Your task to perform on an android device: check out phone information Image 0: 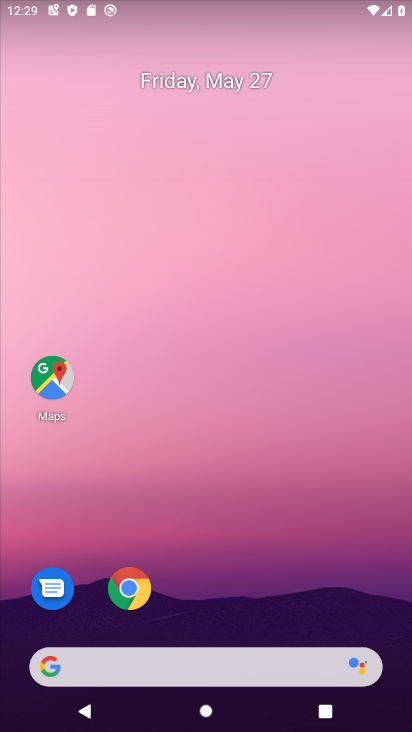
Step 0: drag from (153, 724) to (229, 142)
Your task to perform on an android device: check out phone information Image 1: 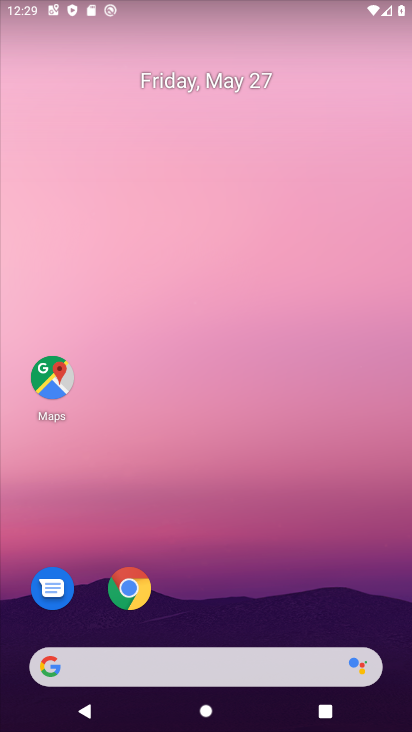
Step 1: drag from (153, 692) to (139, 38)
Your task to perform on an android device: check out phone information Image 2: 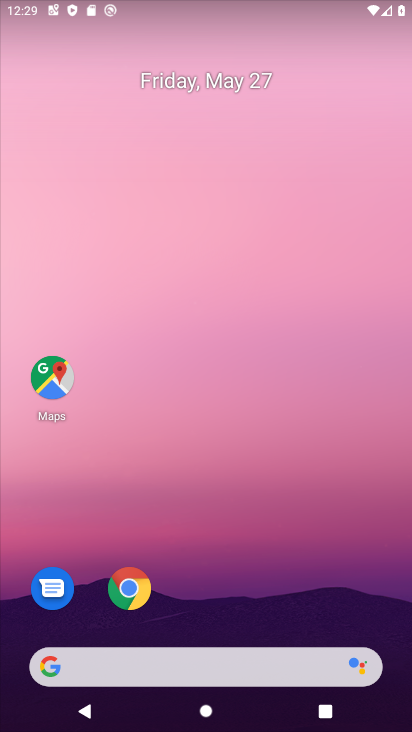
Step 2: drag from (138, 697) to (162, 23)
Your task to perform on an android device: check out phone information Image 3: 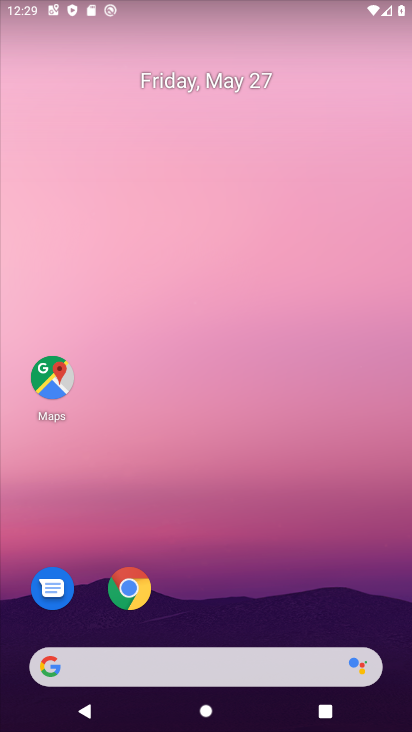
Step 3: drag from (155, 726) to (217, 7)
Your task to perform on an android device: check out phone information Image 4: 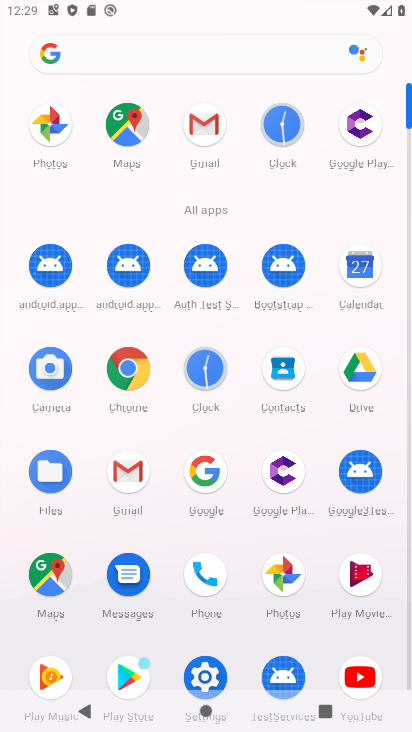
Step 4: click (210, 675)
Your task to perform on an android device: check out phone information Image 5: 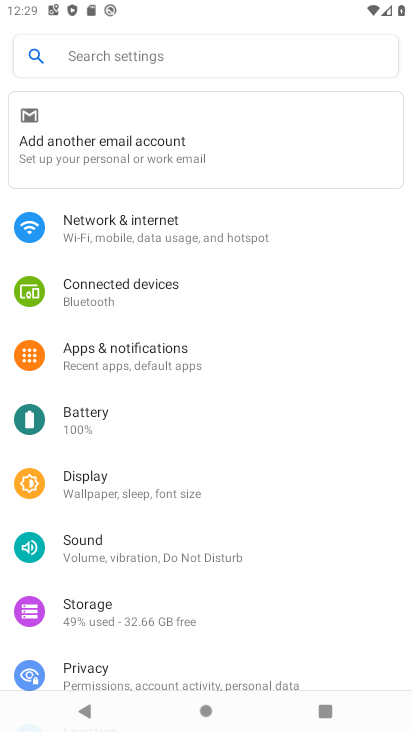
Step 5: drag from (150, 665) to (222, 183)
Your task to perform on an android device: check out phone information Image 6: 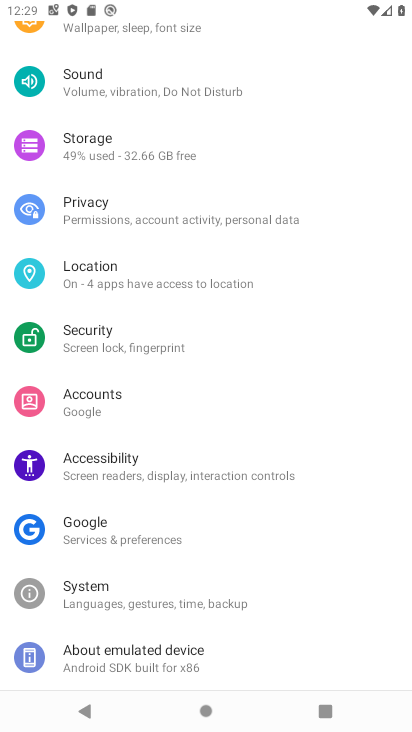
Step 6: click (117, 658)
Your task to perform on an android device: check out phone information Image 7: 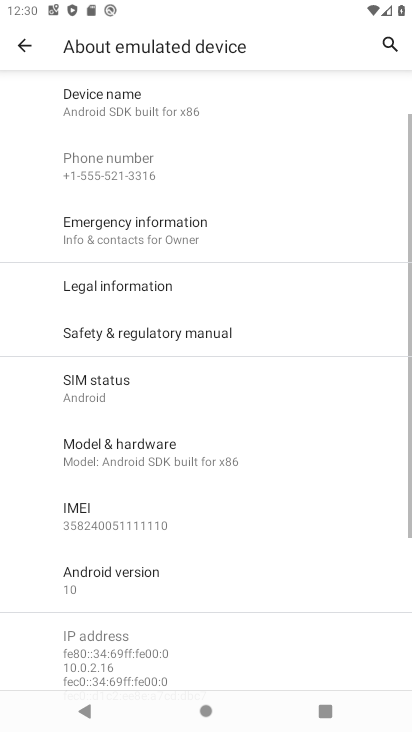
Step 7: task complete